Your task to perform on an android device: Open settings Image 0: 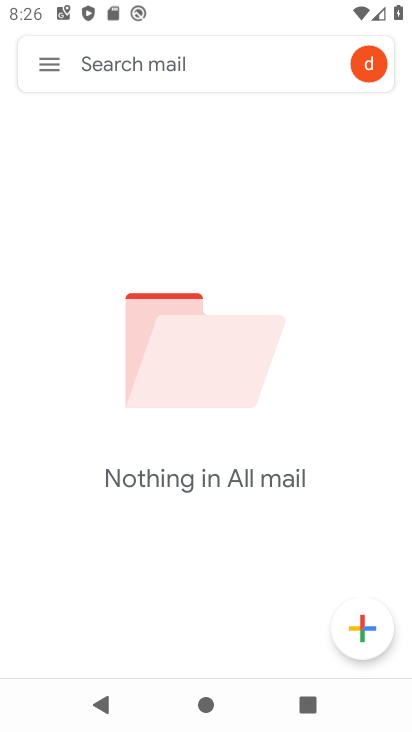
Step 0: press home button
Your task to perform on an android device: Open settings Image 1: 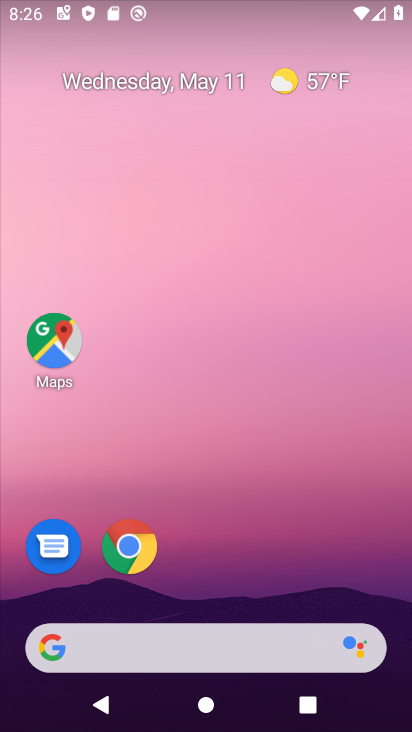
Step 1: drag from (235, 586) to (245, 107)
Your task to perform on an android device: Open settings Image 2: 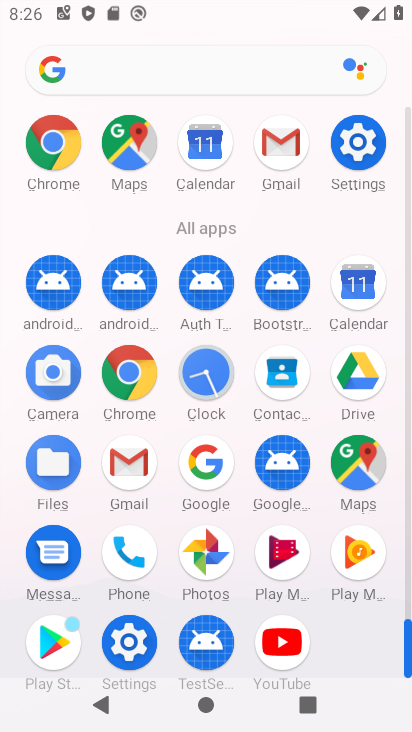
Step 2: click (349, 152)
Your task to perform on an android device: Open settings Image 3: 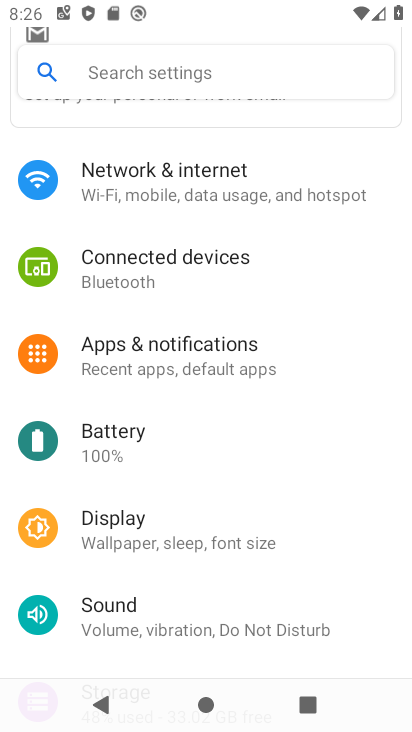
Step 3: task complete